Your task to perform on an android device: Open Google Maps and go to "Timeline" Image 0: 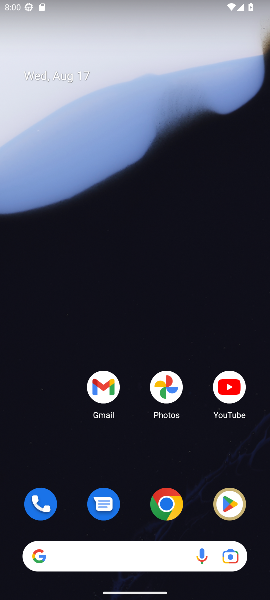
Step 0: drag from (139, 422) to (111, 191)
Your task to perform on an android device: Open Google Maps and go to "Timeline" Image 1: 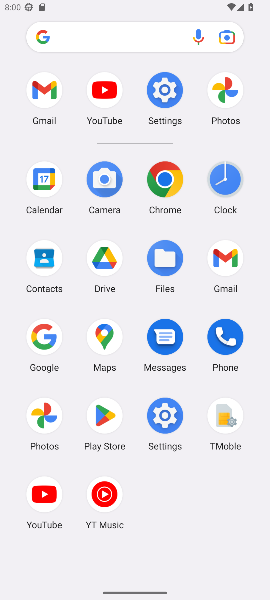
Step 1: click (52, 349)
Your task to perform on an android device: Open Google Maps and go to "Timeline" Image 2: 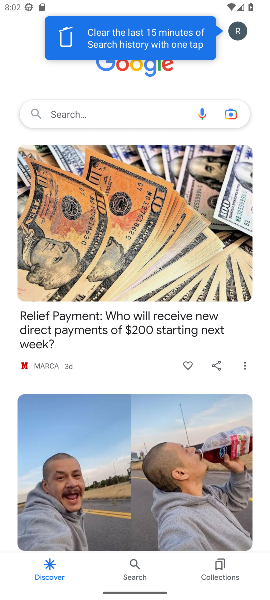
Step 2: task complete